Your task to perform on an android device: Turn on the flashlight Image 0: 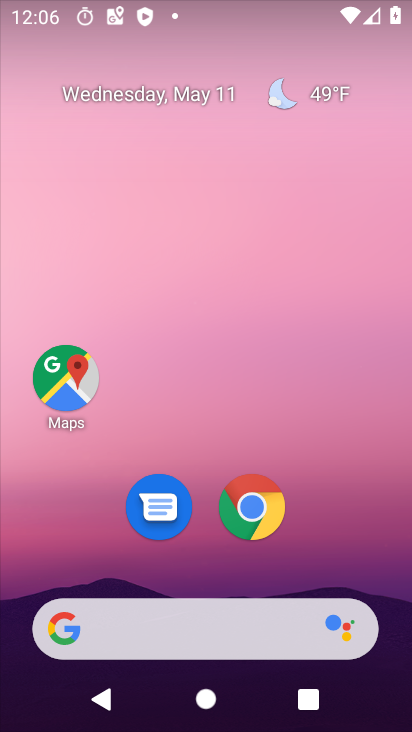
Step 0: drag from (205, 582) to (201, 83)
Your task to perform on an android device: Turn on the flashlight Image 1: 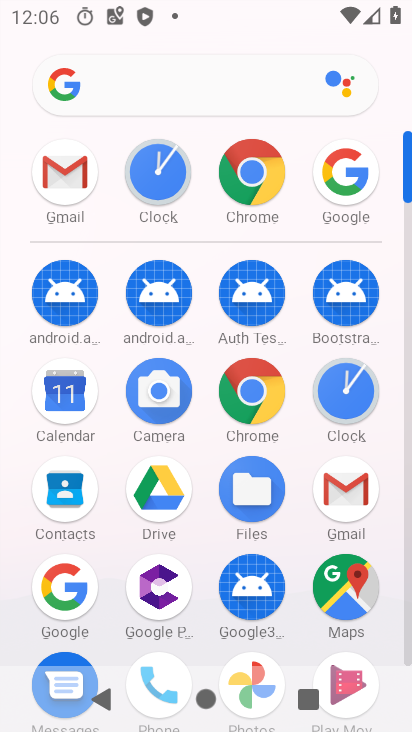
Step 1: drag from (187, 543) to (232, 81)
Your task to perform on an android device: Turn on the flashlight Image 2: 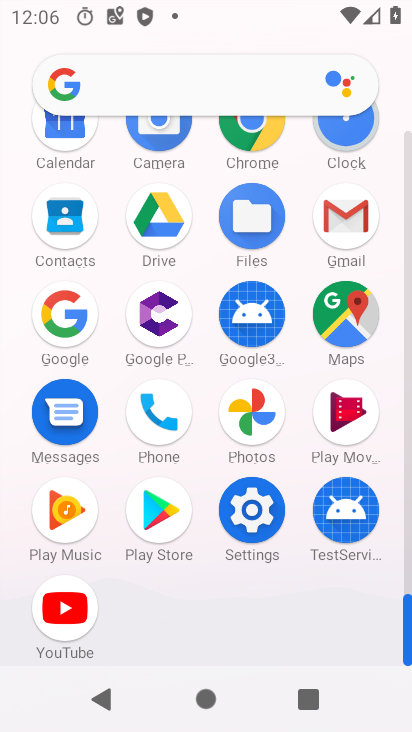
Step 2: click (247, 521)
Your task to perform on an android device: Turn on the flashlight Image 3: 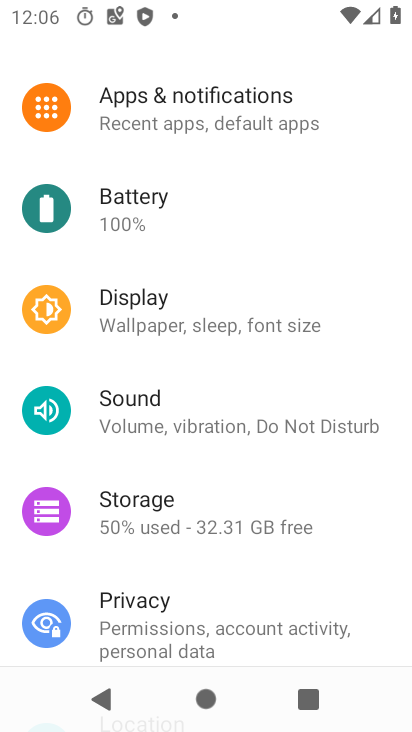
Step 3: drag from (202, 171) to (251, 544)
Your task to perform on an android device: Turn on the flashlight Image 4: 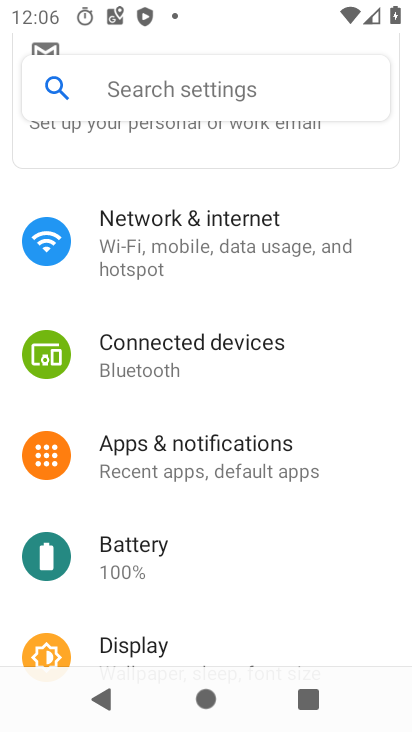
Step 4: click (185, 94)
Your task to perform on an android device: Turn on the flashlight Image 5: 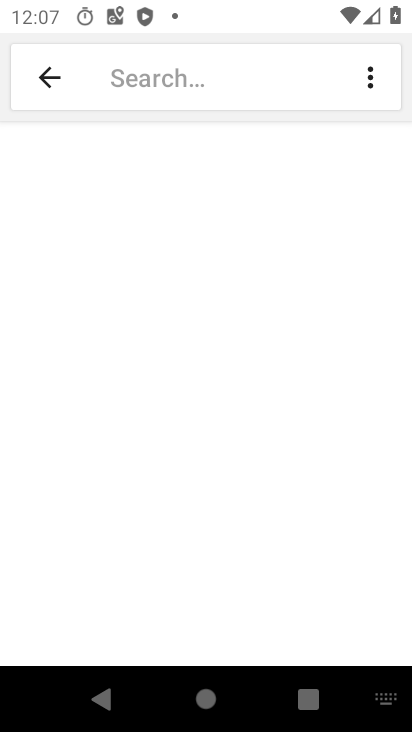
Step 5: type "flash"
Your task to perform on an android device: Turn on the flashlight Image 6: 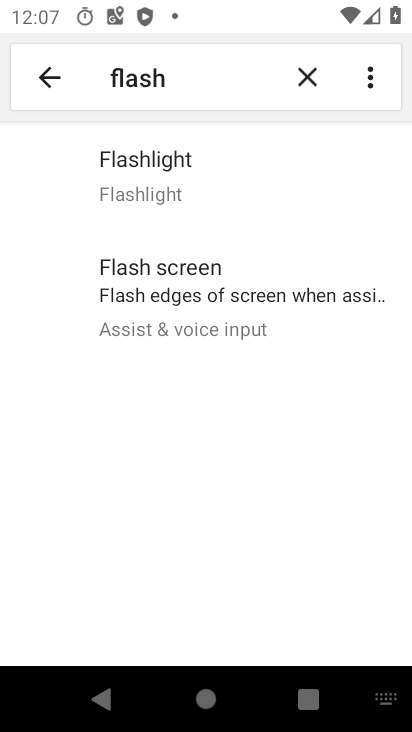
Step 6: task complete